Your task to perform on an android device: check data usage Image 0: 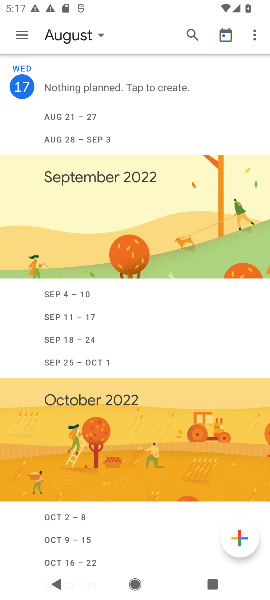
Step 0: press home button
Your task to perform on an android device: check data usage Image 1: 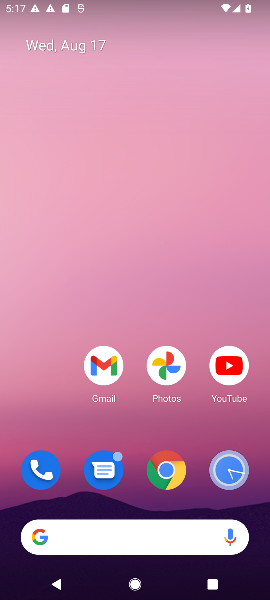
Step 1: drag from (127, 505) to (34, 324)
Your task to perform on an android device: check data usage Image 2: 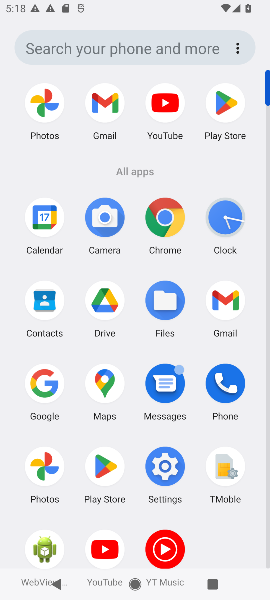
Step 2: click (175, 478)
Your task to perform on an android device: check data usage Image 3: 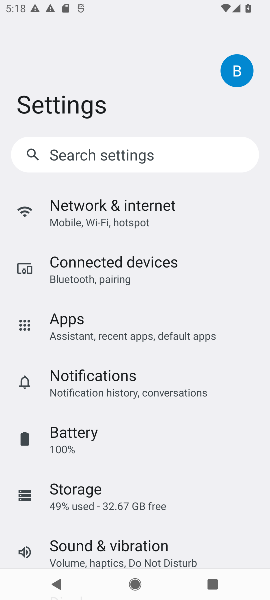
Step 3: click (134, 223)
Your task to perform on an android device: check data usage Image 4: 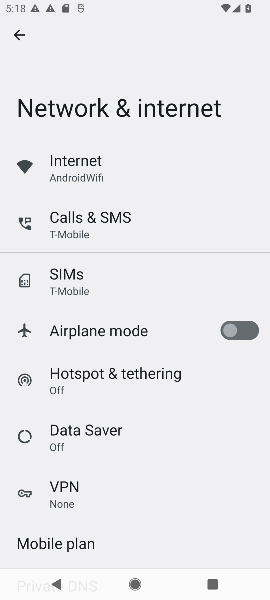
Step 4: click (81, 173)
Your task to perform on an android device: check data usage Image 5: 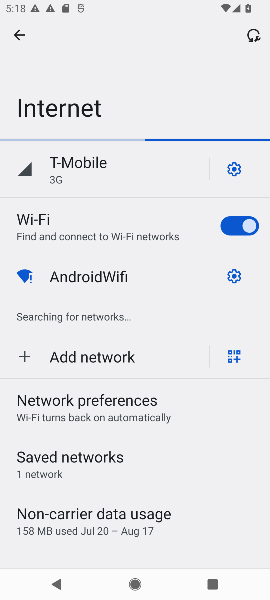
Step 5: click (235, 174)
Your task to perform on an android device: check data usage Image 6: 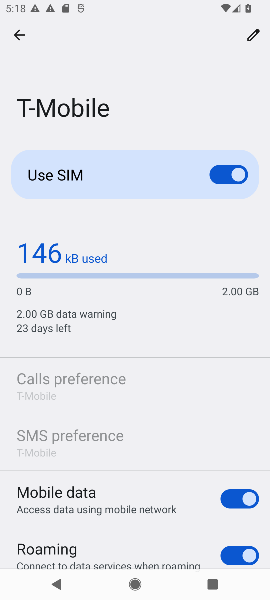
Step 6: drag from (145, 432) to (141, 175)
Your task to perform on an android device: check data usage Image 7: 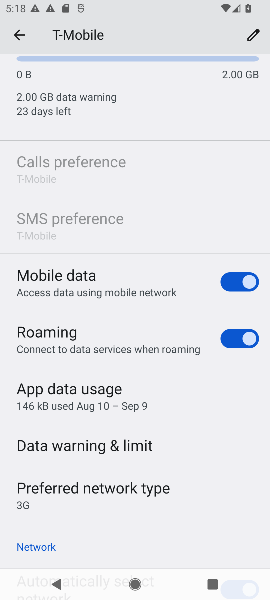
Step 7: click (95, 405)
Your task to perform on an android device: check data usage Image 8: 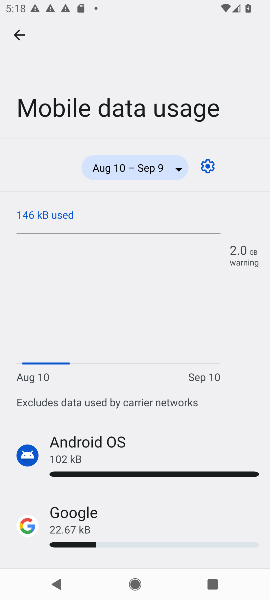
Step 8: task complete